Your task to perform on an android device: open app "Google Chrome" (install if not already installed) Image 0: 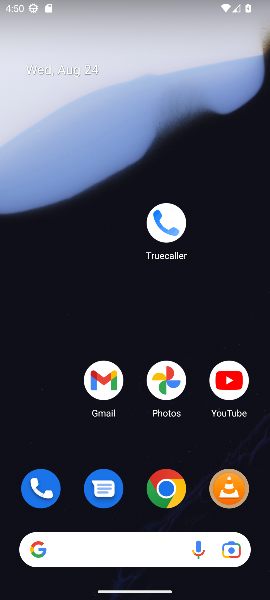
Step 0: drag from (131, 519) to (18, 10)
Your task to perform on an android device: open app "Google Chrome" (install if not already installed) Image 1: 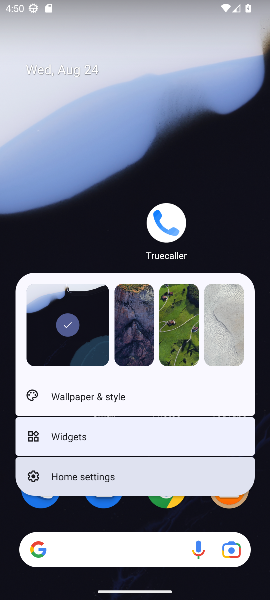
Step 1: click (74, 161)
Your task to perform on an android device: open app "Google Chrome" (install if not already installed) Image 2: 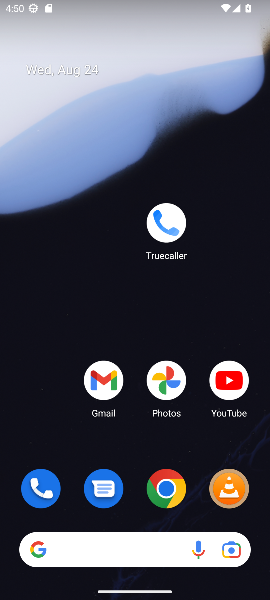
Step 2: drag from (128, 520) to (110, 93)
Your task to perform on an android device: open app "Google Chrome" (install if not already installed) Image 3: 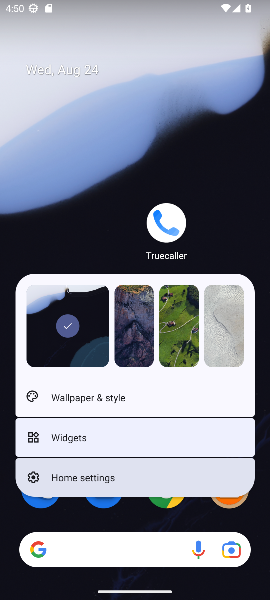
Step 3: click (82, 180)
Your task to perform on an android device: open app "Google Chrome" (install if not already installed) Image 4: 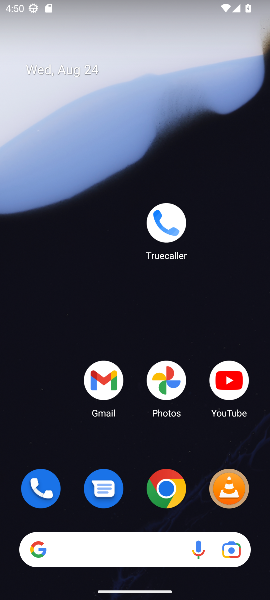
Step 4: drag from (138, 513) to (150, 1)
Your task to perform on an android device: open app "Google Chrome" (install if not already installed) Image 5: 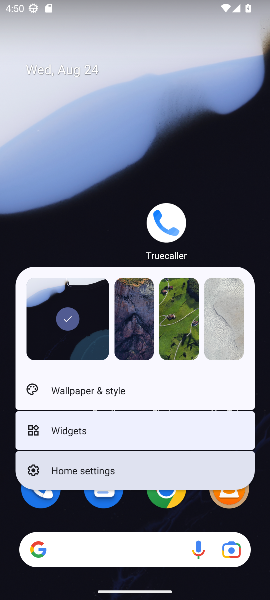
Step 5: click (102, 142)
Your task to perform on an android device: open app "Google Chrome" (install if not already installed) Image 6: 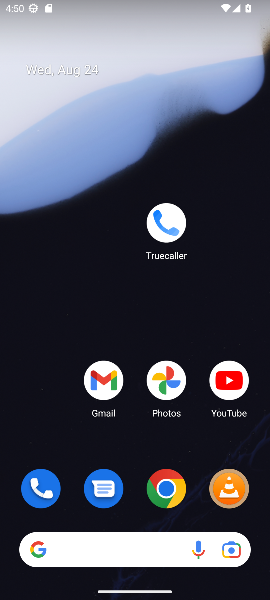
Step 6: drag from (131, 525) to (208, 0)
Your task to perform on an android device: open app "Google Chrome" (install if not already installed) Image 7: 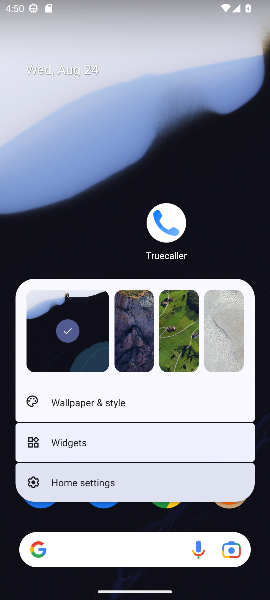
Step 7: click (159, 65)
Your task to perform on an android device: open app "Google Chrome" (install if not already installed) Image 8: 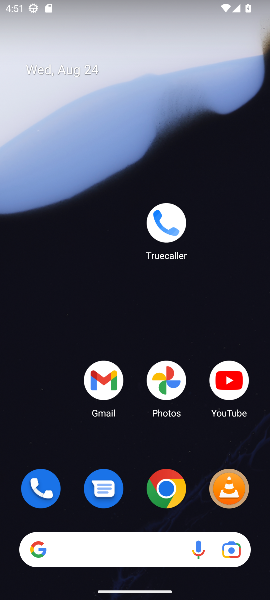
Step 8: drag from (126, 514) to (126, 81)
Your task to perform on an android device: open app "Google Chrome" (install if not already installed) Image 9: 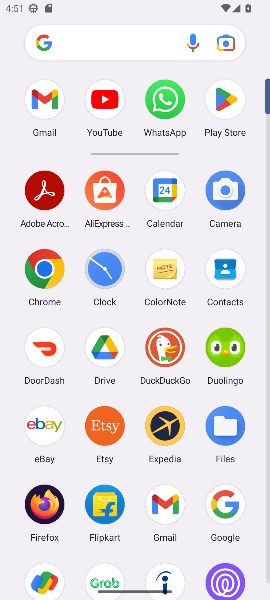
Step 9: click (216, 123)
Your task to perform on an android device: open app "Google Chrome" (install if not already installed) Image 10: 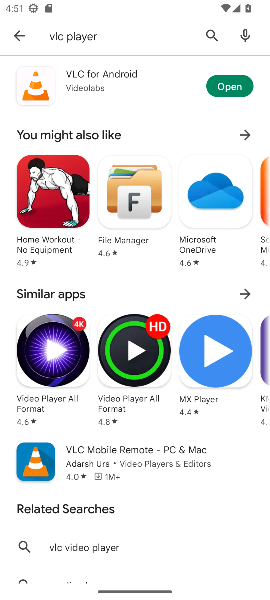
Step 10: press home button
Your task to perform on an android device: open app "Google Chrome" (install if not already installed) Image 11: 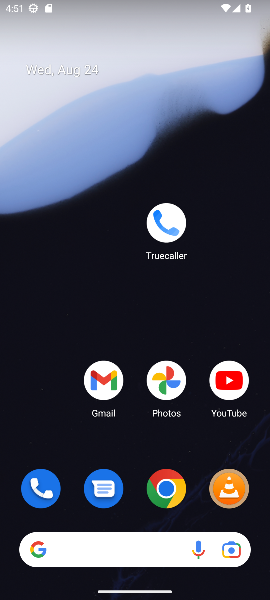
Step 11: click (176, 486)
Your task to perform on an android device: open app "Google Chrome" (install if not already installed) Image 12: 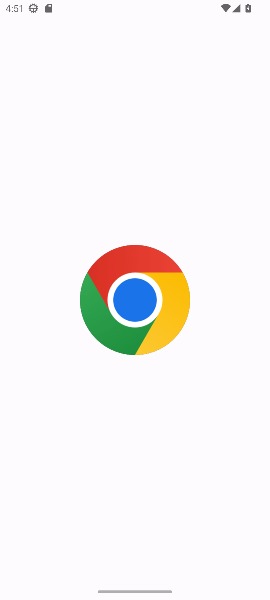
Step 12: task complete